Your task to perform on an android device: Open Reddit.com Image 0: 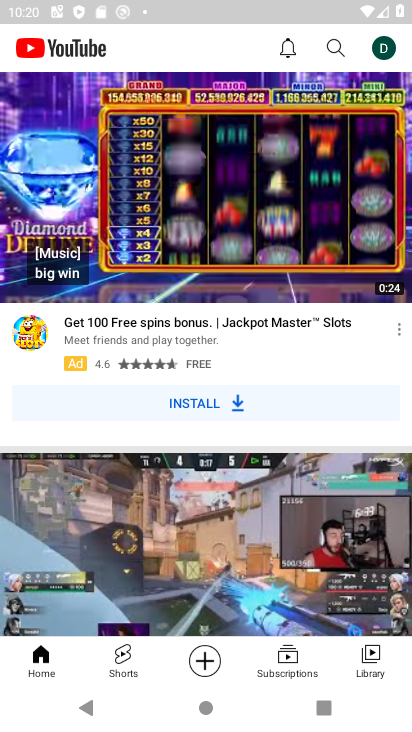
Step 0: press home button
Your task to perform on an android device: Open Reddit.com Image 1: 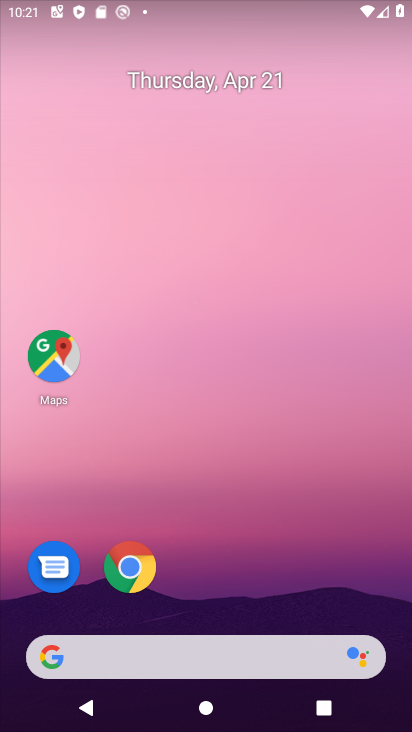
Step 1: click (136, 555)
Your task to perform on an android device: Open Reddit.com Image 2: 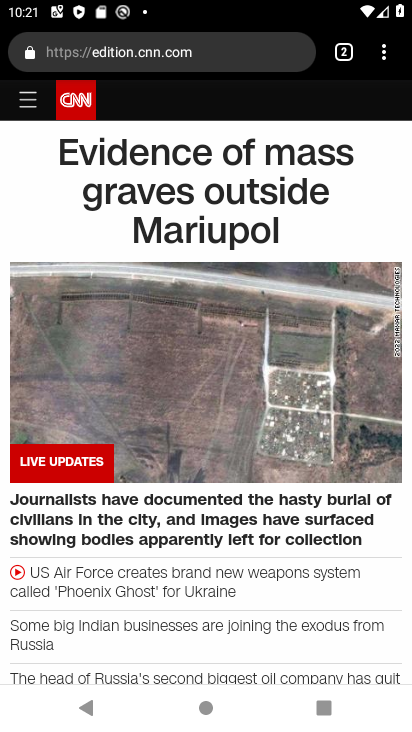
Step 2: click (169, 45)
Your task to perform on an android device: Open Reddit.com Image 3: 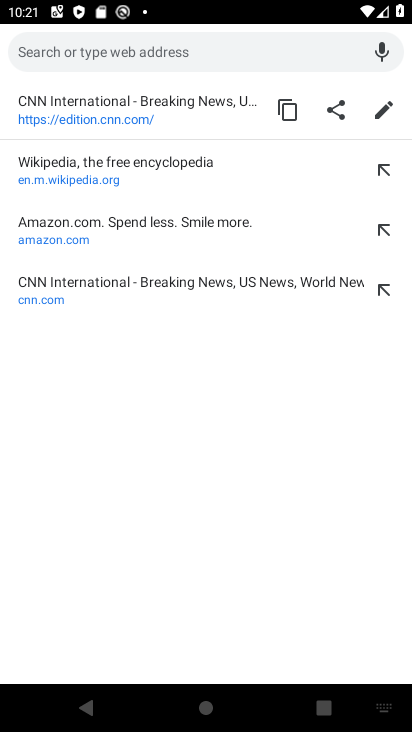
Step 3: type ""
Your task to perform on an android device: Open Reddit.com Image 4: 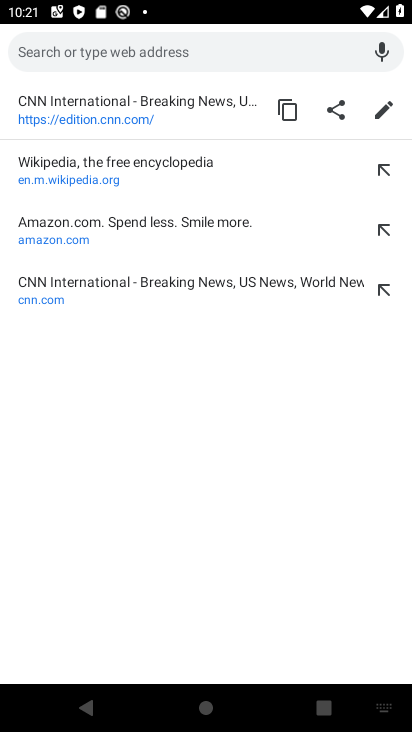
Step 4: type "reddit.com"
Your task to perform on an android device: Open Reddit.com Image 5: 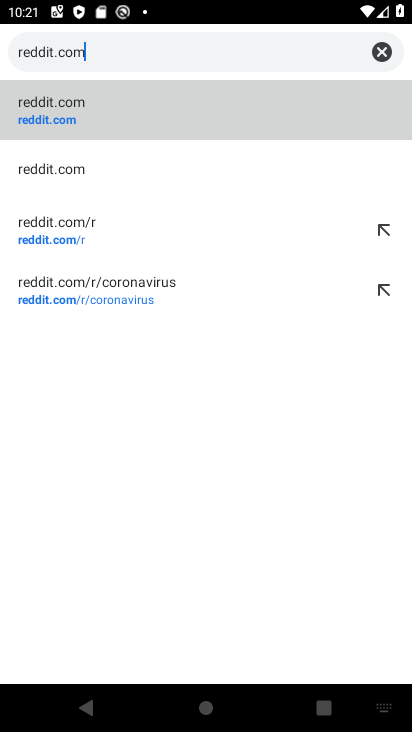
Step 5: click (83, 101)
Your task to perform on an android device: Open Reddit.com Image 6: 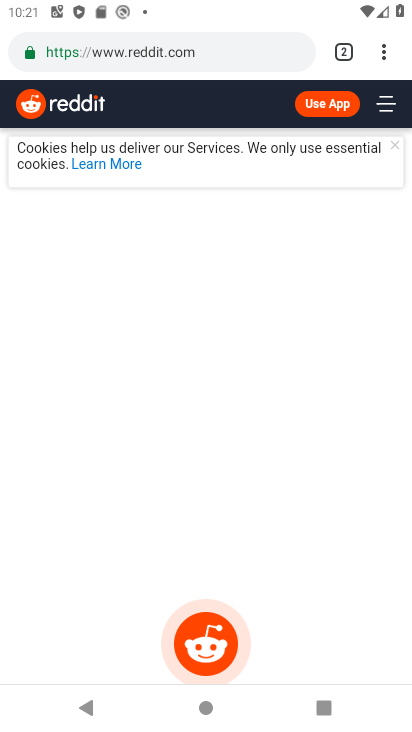
Step 6: task complete